Your task to perform on an android device: Open wifi settings Image 0: 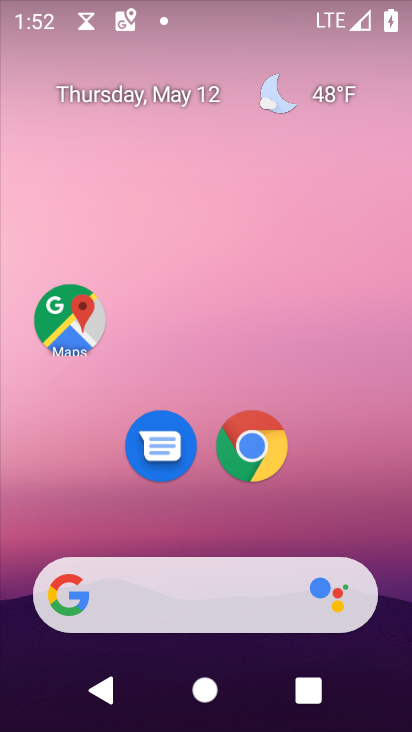
Step 0: click (80, 316)
Your task to perform on an android device: Open wifi settings Image 1: 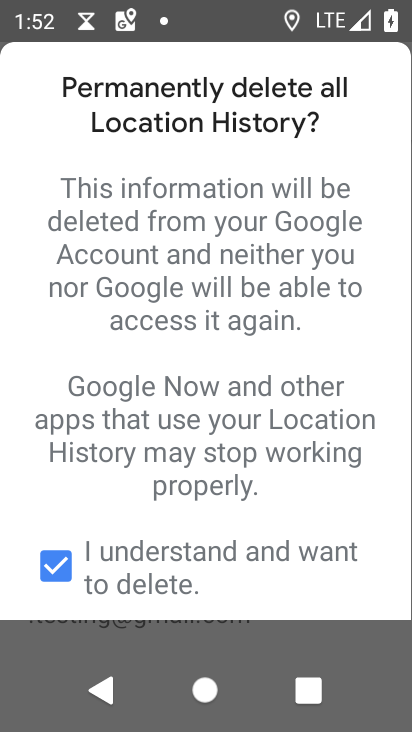
Step 1: drag from (245, 531) to (298, 232)
Your task to perform on an android device: Open wifi settings Image 2: 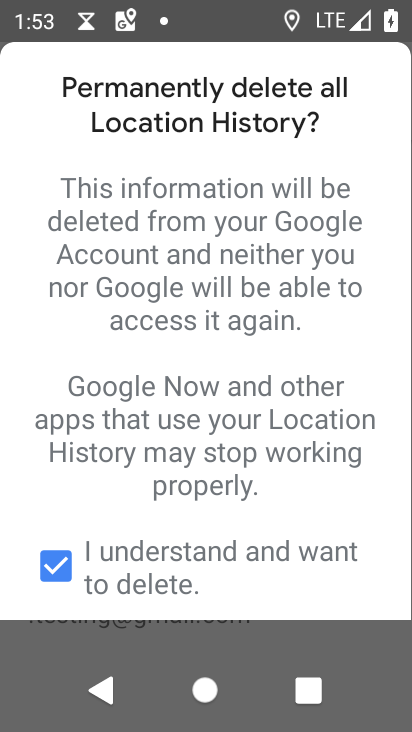
Step 2: press home button
Your task to perform on an android device: Open wifi settings Image 3: 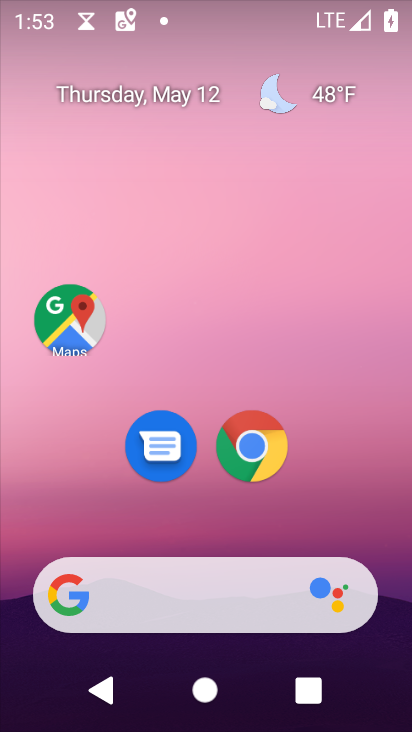
Step 3: drag from (350, 522) to (365, 10)
Your task to perform on an android device: Open wifi settings Image 4: 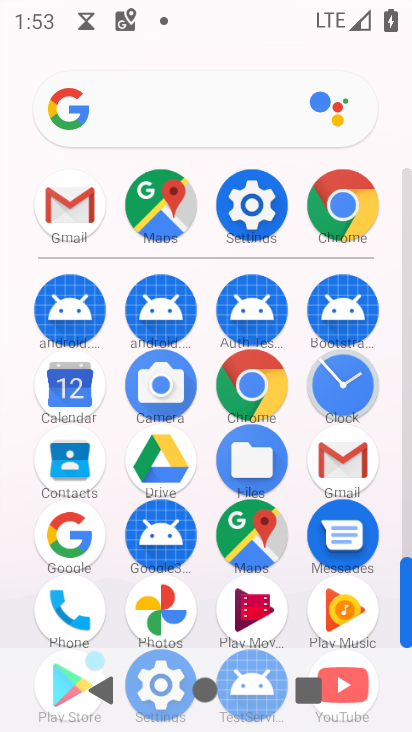
Step 4: click (252, 199)
Your task to perform on an android device: Open wifi settings Image 5: 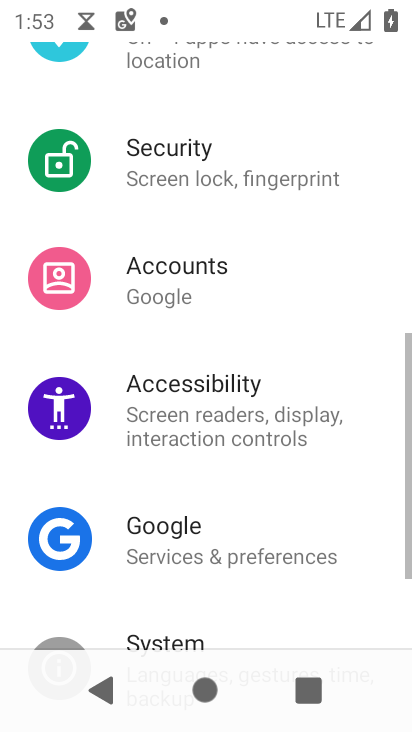
Step 5: drag from (251, 143) to (214, 561)
Your task to perform on an android device: Open wifi settings Image 6: 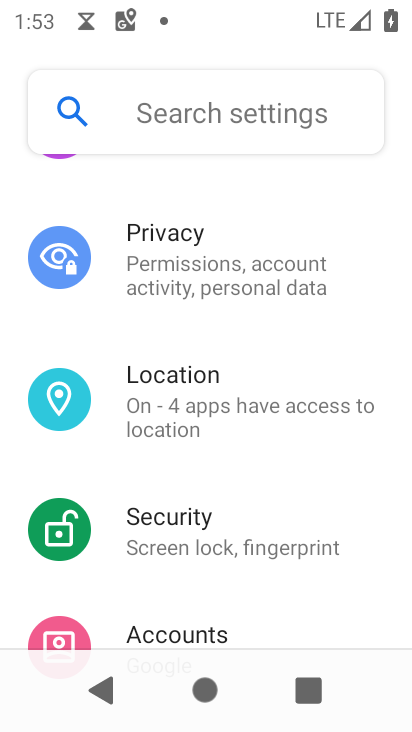
Step 6: drag from (251, 241) to (215, 551)
Your task to perform on an android device: Open wifi settings Image 7: 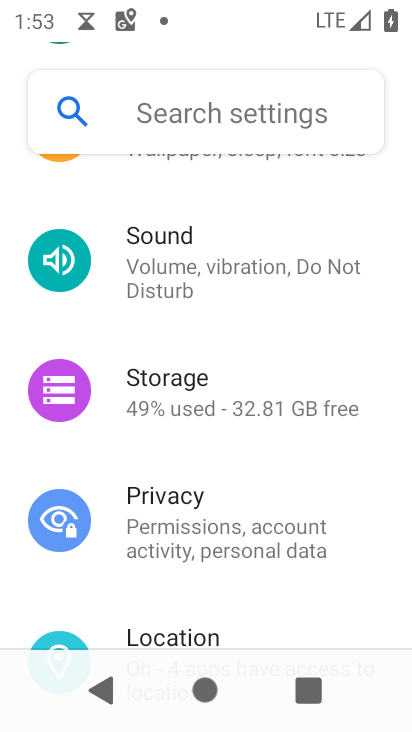
Step 7: drag from (228, 261) to (204, 578)
Your task to perform on an android device: Open wifi settings Image 8: 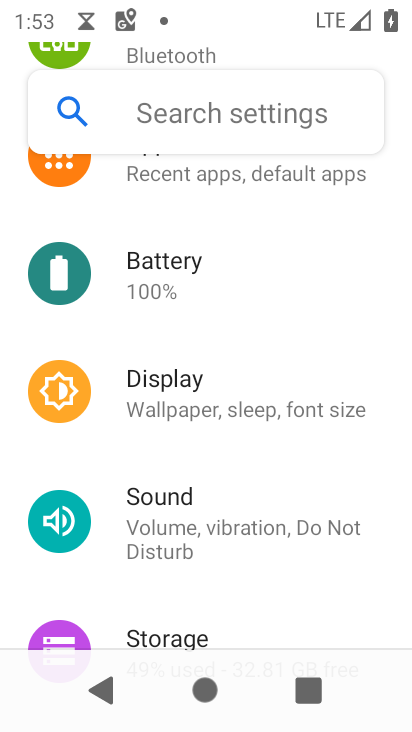
Step 8: drag from (231, 304) to (216, 637)
Your task to perform on an android device: Open wifi settings Image 9: 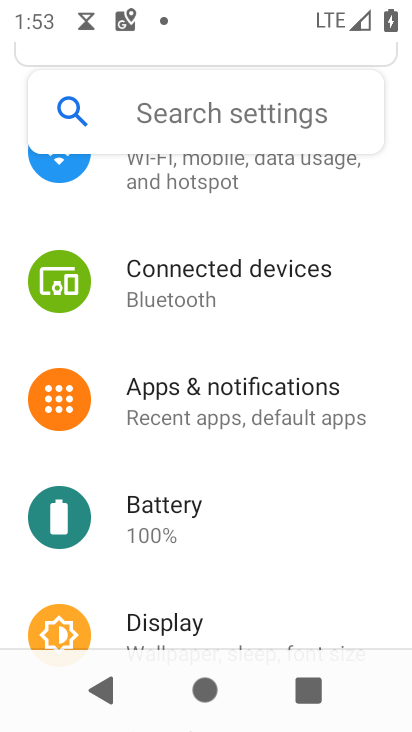
Step 9: drag from (236, 258) to (223, 658)
Your task to perform on an android device: Open wifi settings Image 10: 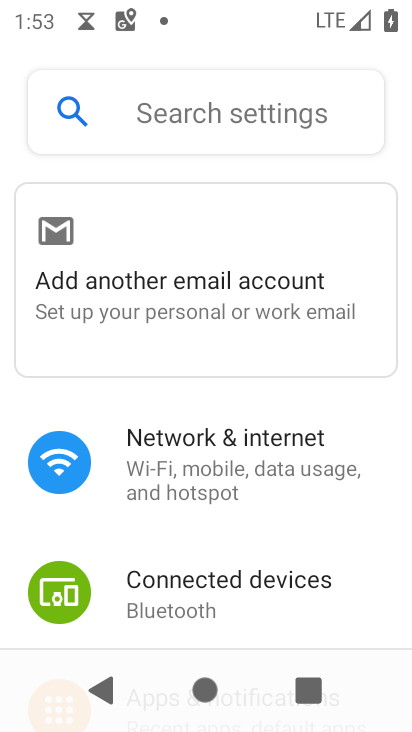
Step 10: click (221, 472)
Your task to perform on an android device: Open wifi settings Image 11: 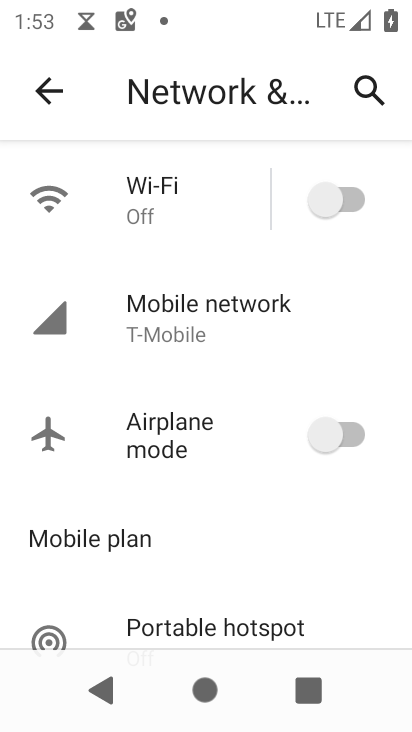
Step 11: click (152, 186)
Your task to perform on an android device: Open wifi settings Image 12: 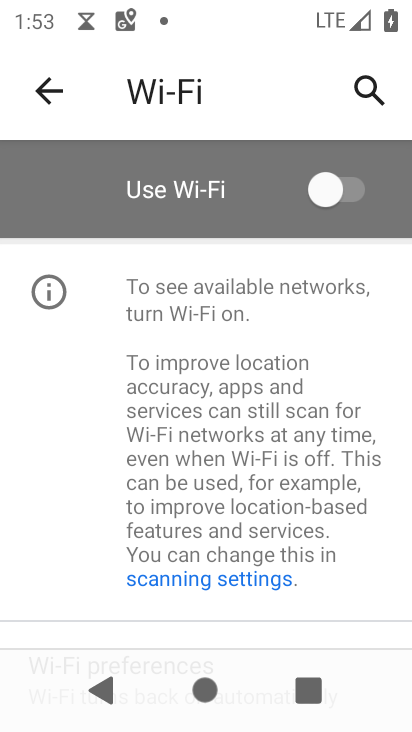
Step 12: task complete